Your task to perform on an android device: change alarm snooze length Image 0: 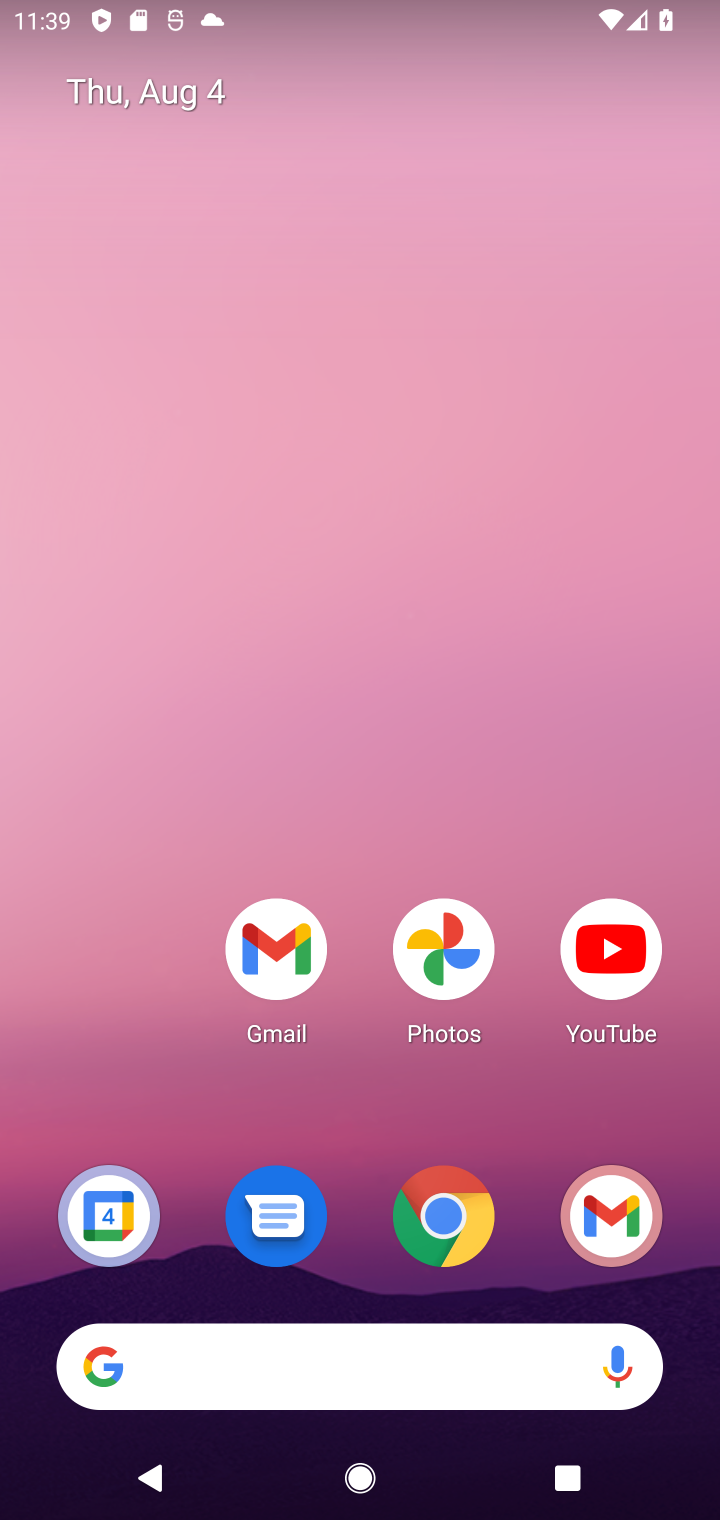
Step 0: drag from (333, 1393) to (426, 307)
Your task to perform on an android device: change alarm snooze length Image 1: 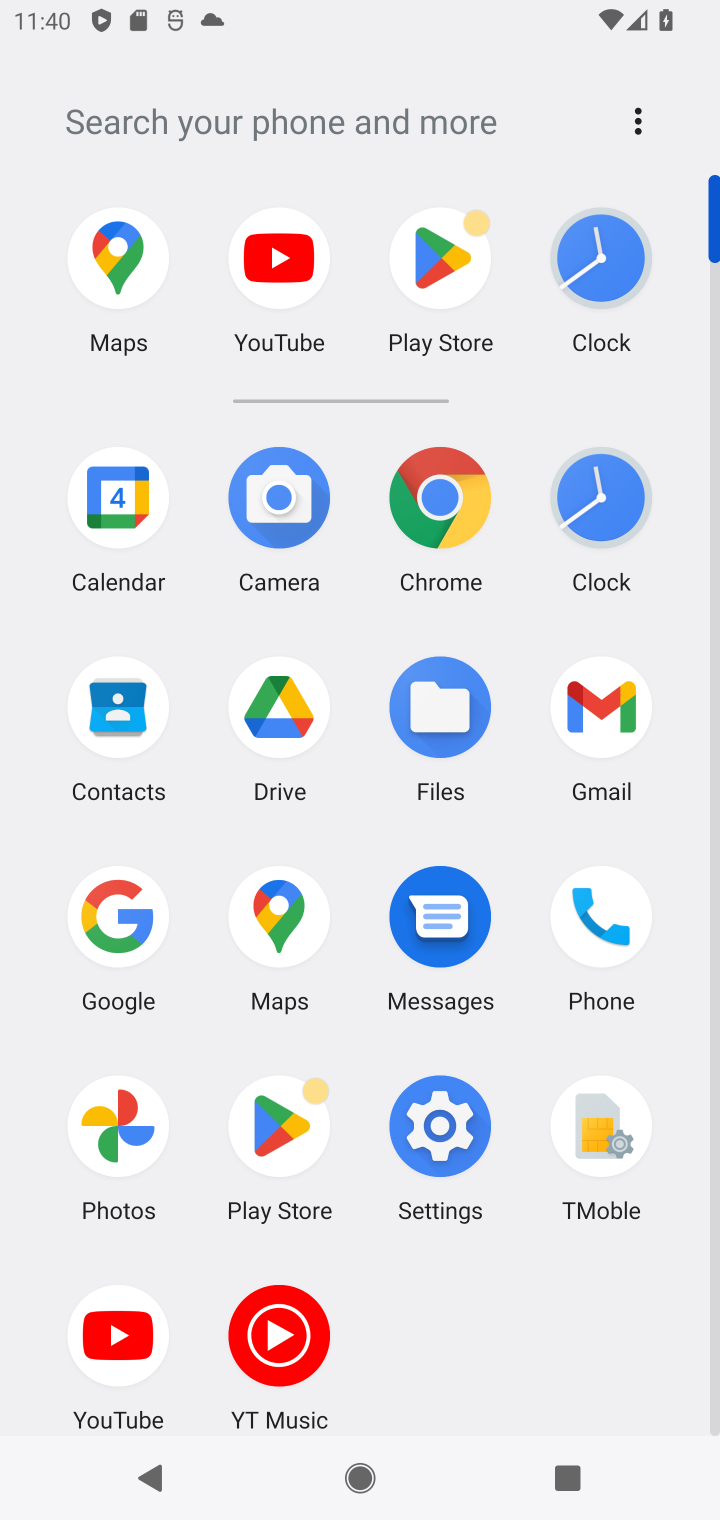
Step 1: click (599, 500)
Your task to perform on an android device: change alarm snooze length Image 2: 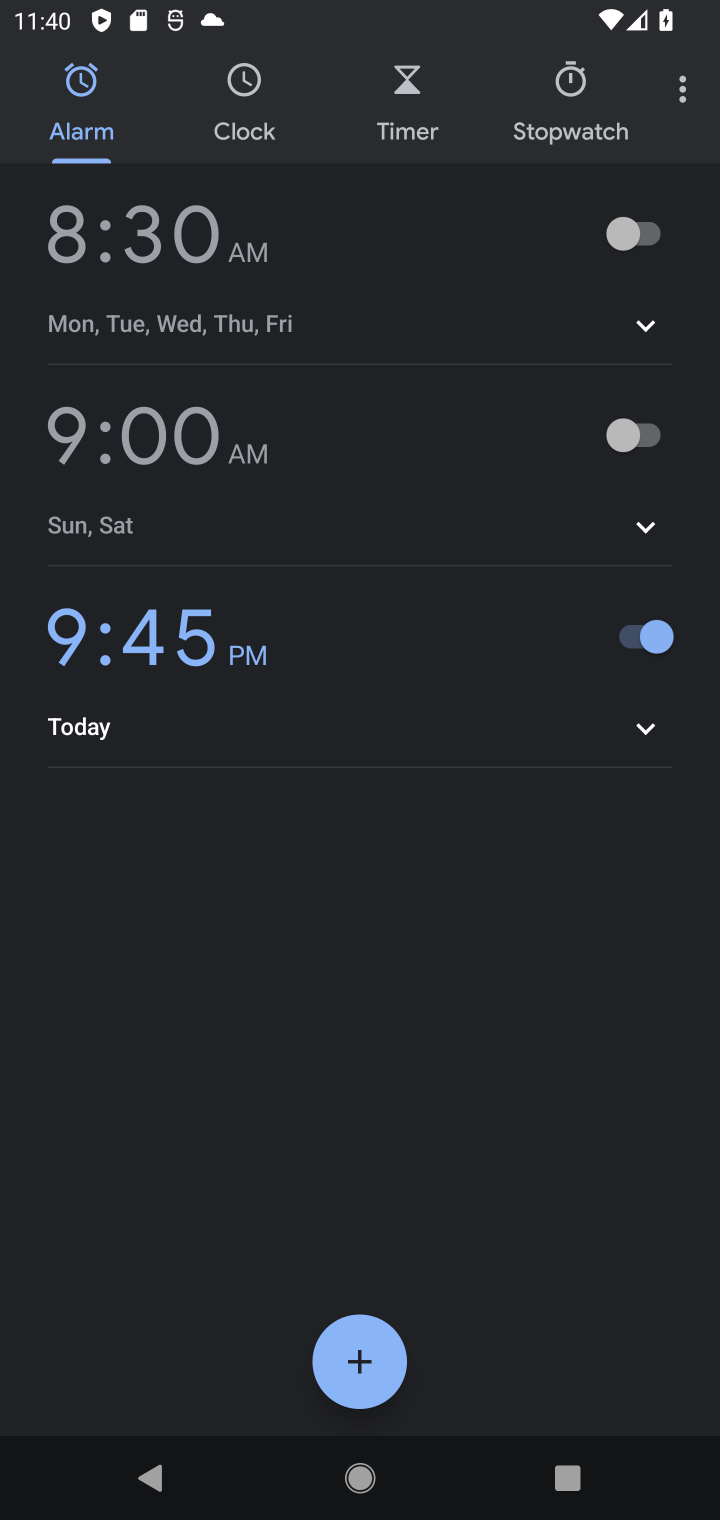
Step 2: click (678, 96)
Your task to perform on an android device: change alarm snooze length Image 3: 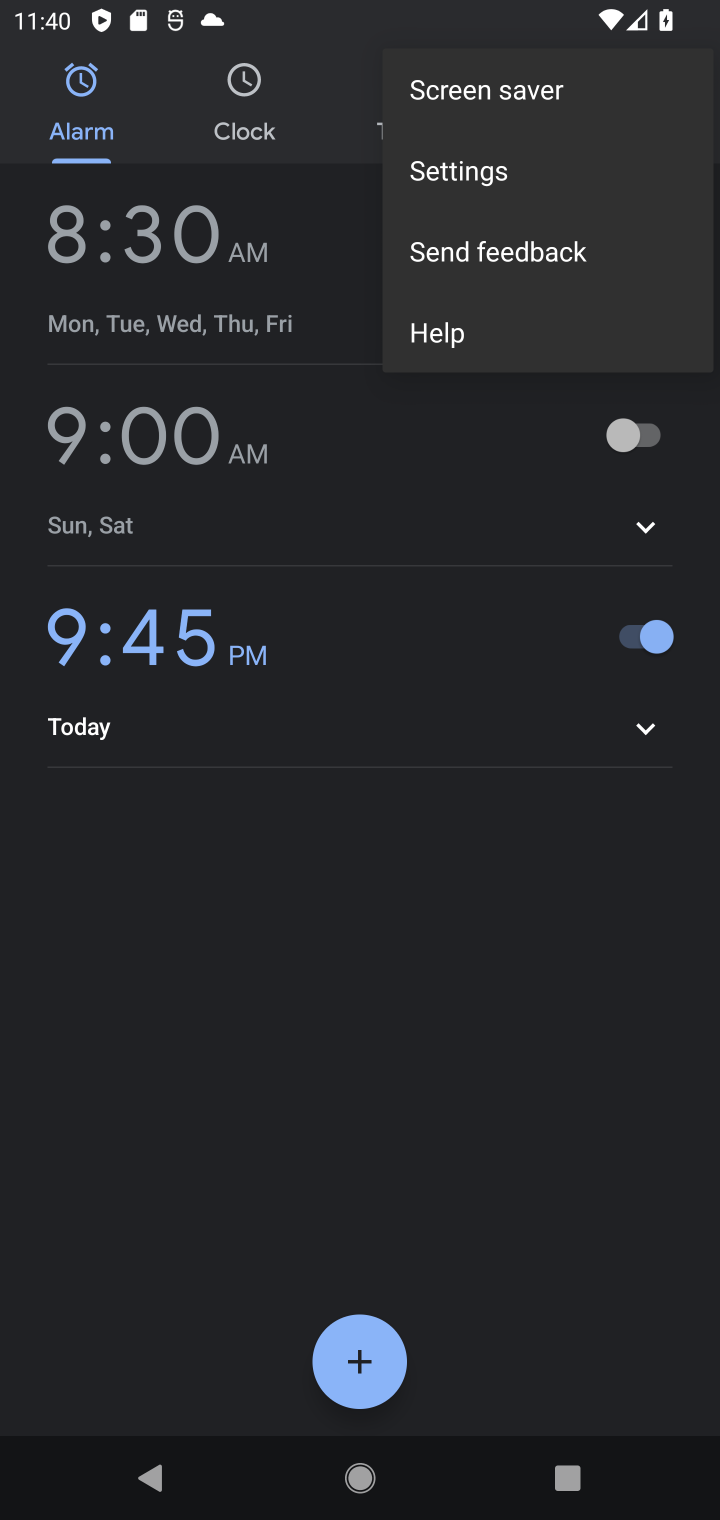
Step 3: click (491, 176)
Your task to perform on an android device: change alarm snooze length Image 4: 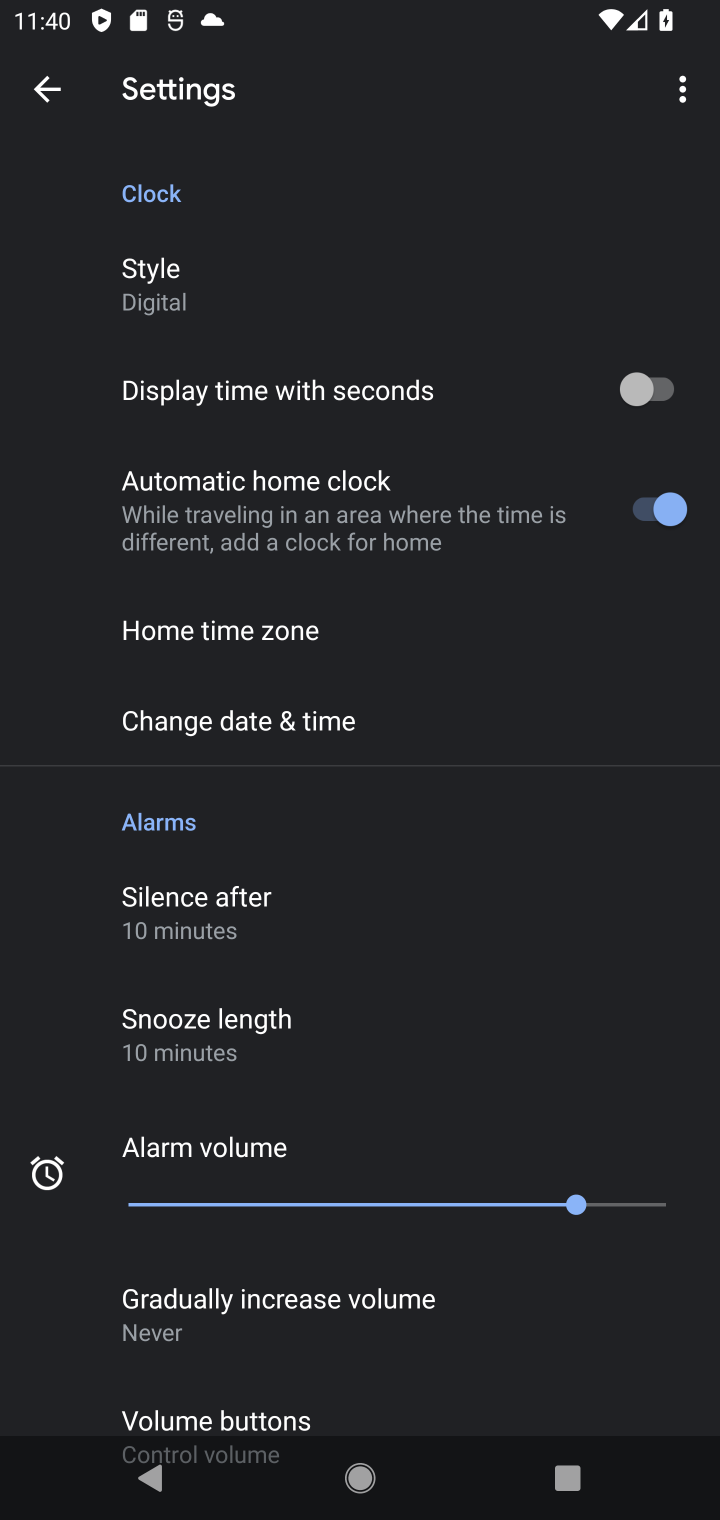
Step 4: click (265, 1044)
Your task to perform on an android device: change alarm snooze length Image 5: 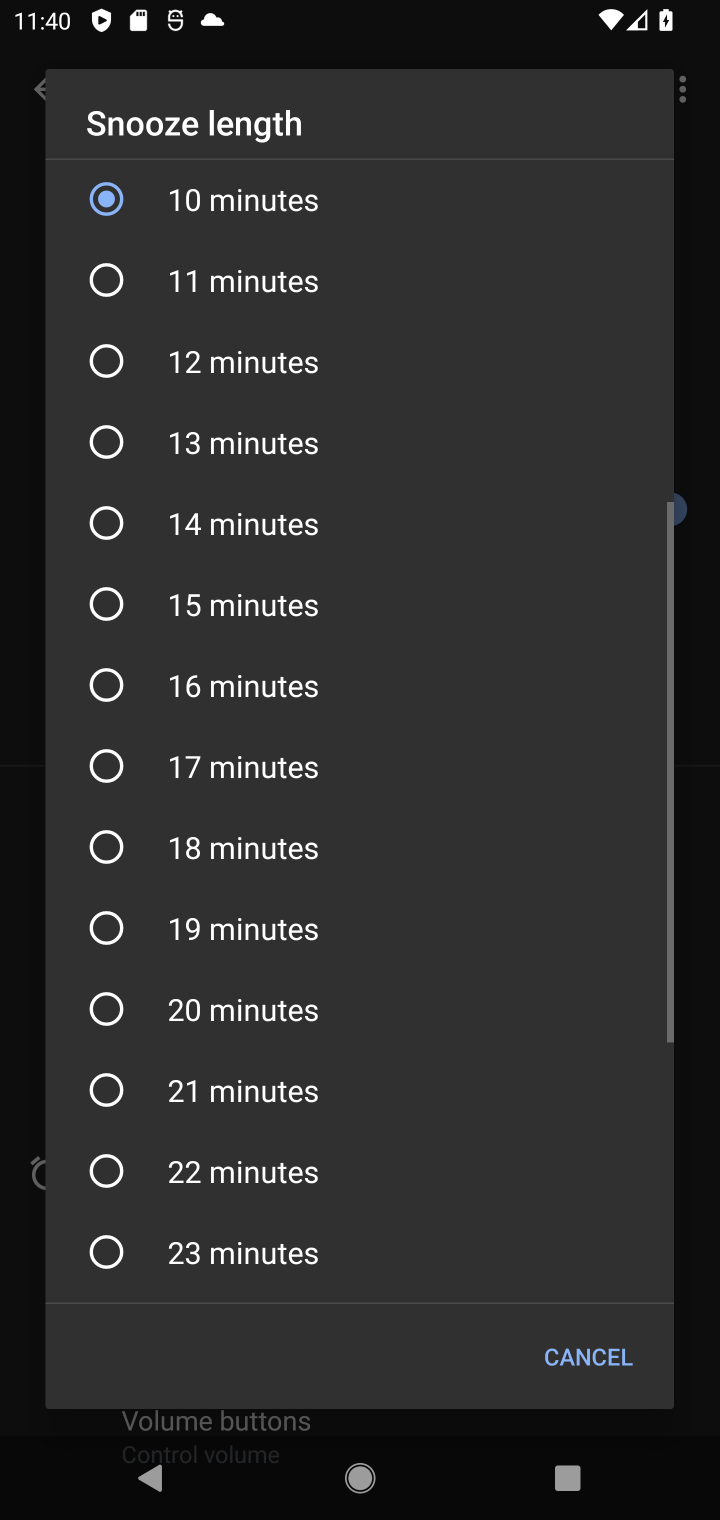
Step 5: drag from (271, 1129) to (381, 836)
Your task to perform on an android device: change alarm snooze length Image 6: 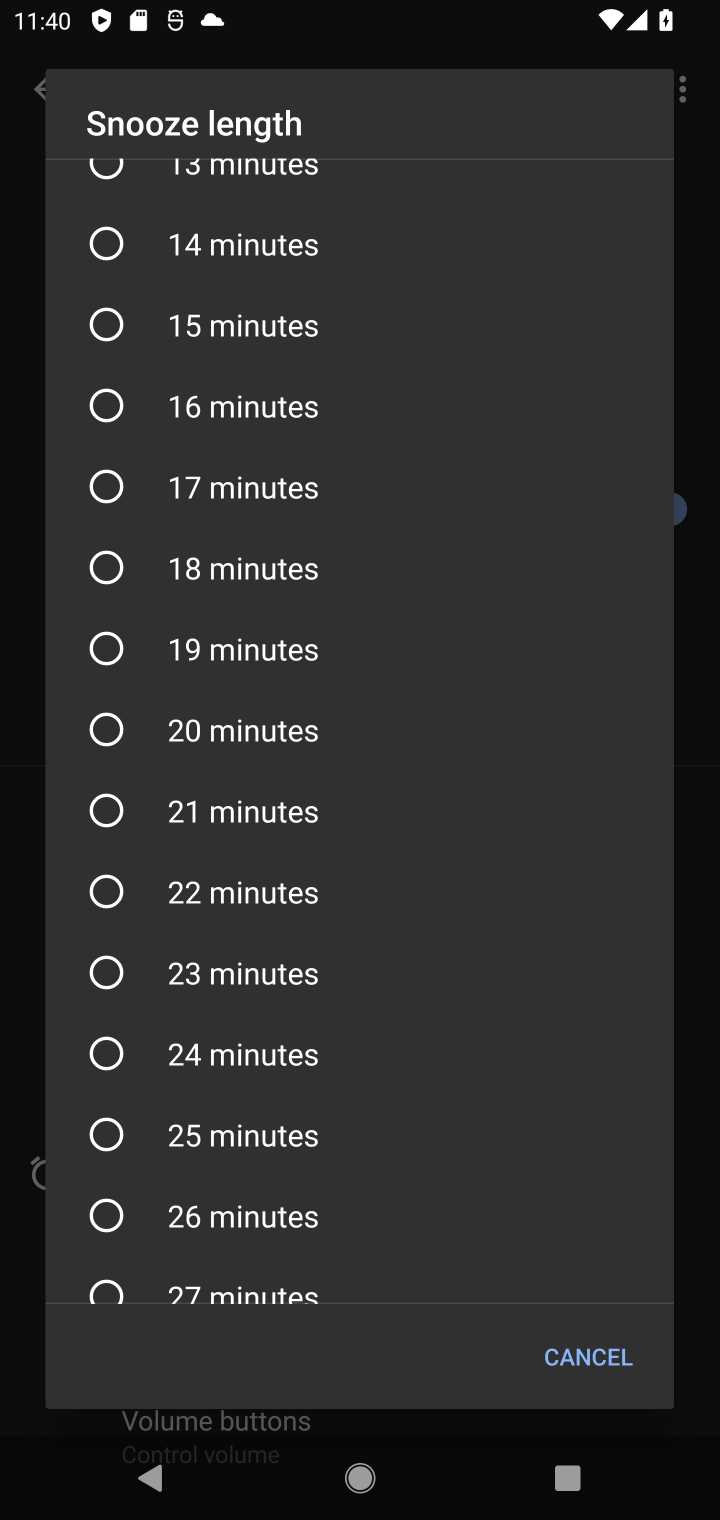
Step 6: drag from (182, 1086) to (323, 768)
Your task to perform on an android device: change alarm snooze length Image 7: 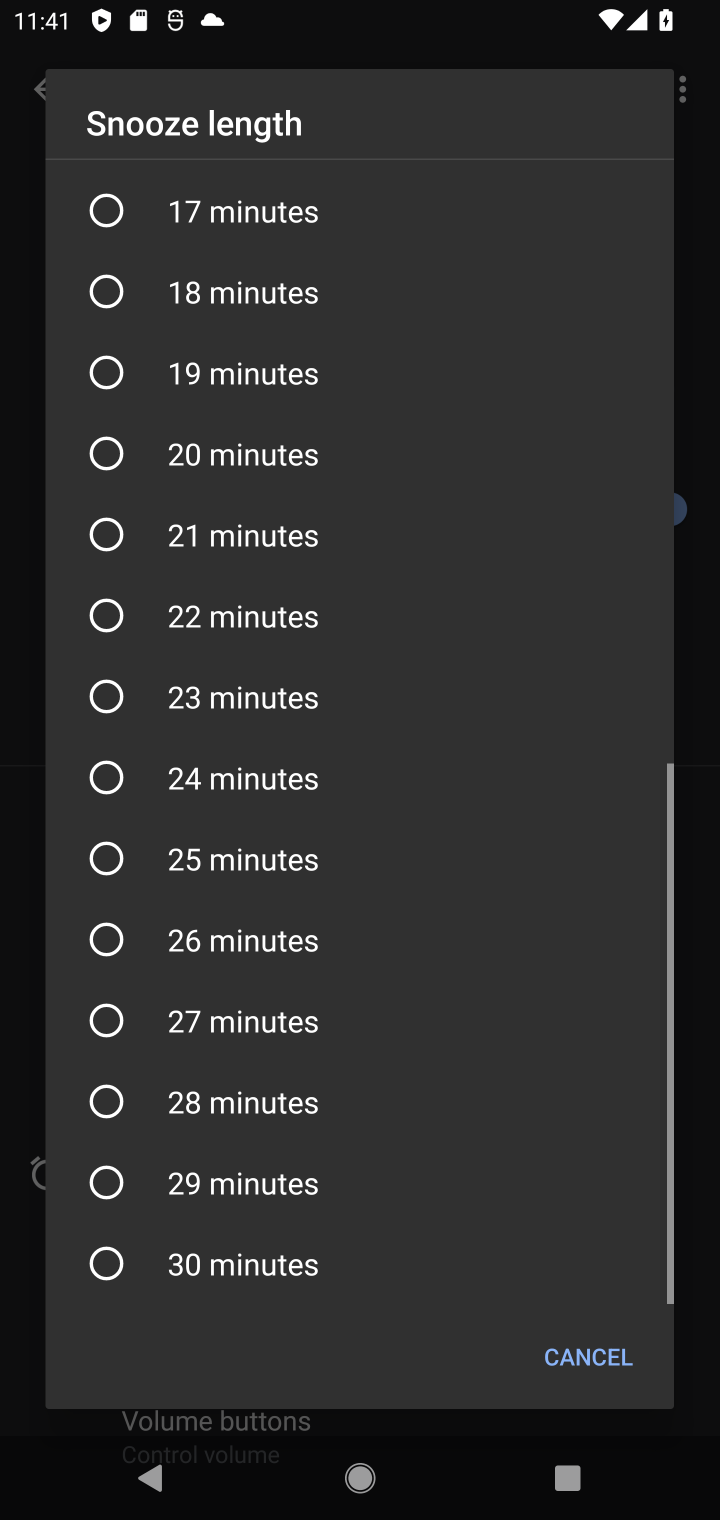
Step 7: click (111, 861)
Your task to perform on an android device: change alarm snooze length Image 8: 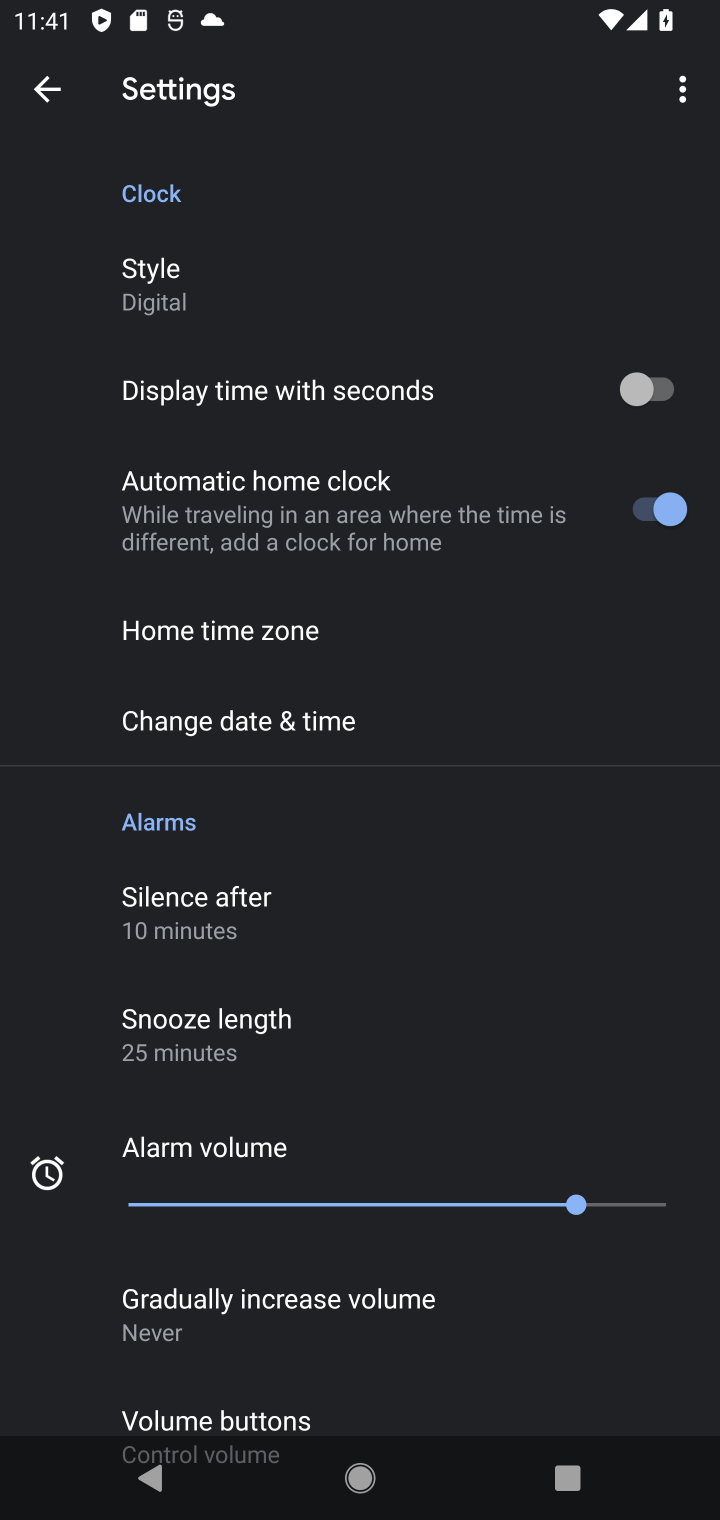
Step 8: task complete